Your task to perform on an android device: Go to location settings Image 0: 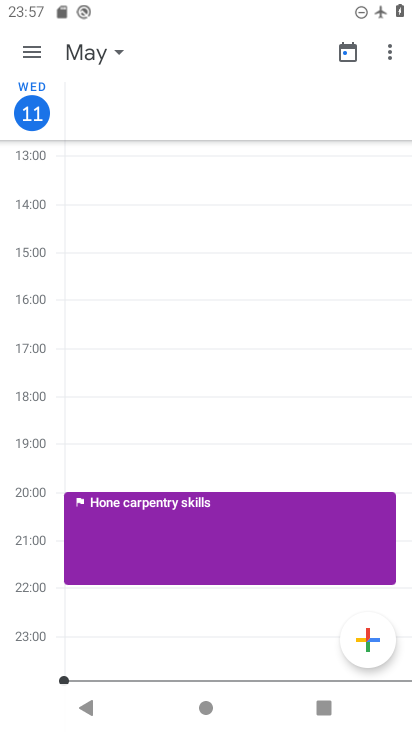
Step 0: press home button
Your task to perform on an android device: Go to location settings Image 1: 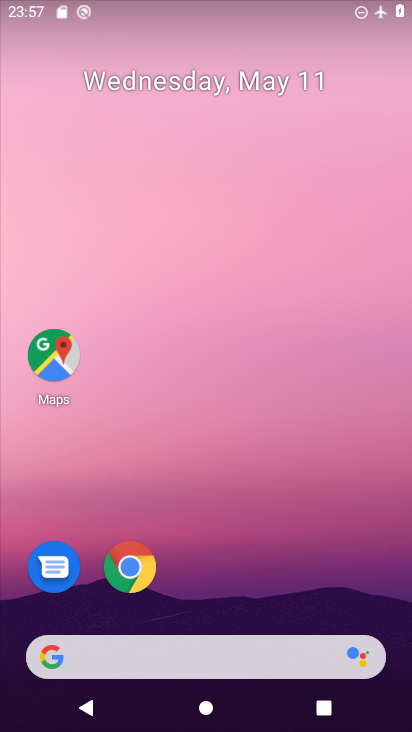
Step 1: drag from (273, 707) to (306, 76)
Your task to perform on an android device: Go to location settings Image 2: 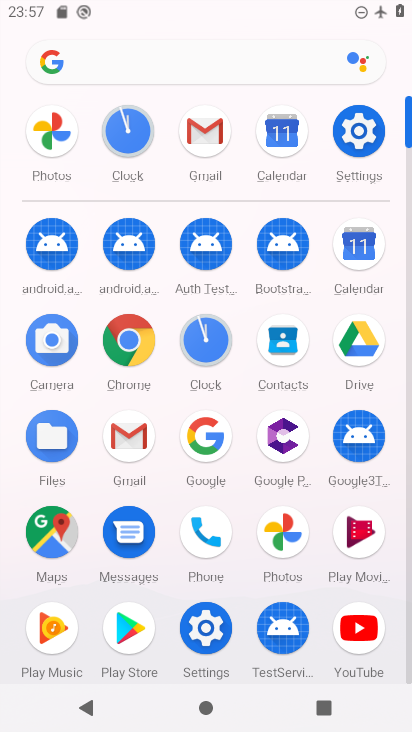
Step 2: click (360, 120)
Your task to perform on an android device: Go to location settings Image 3: 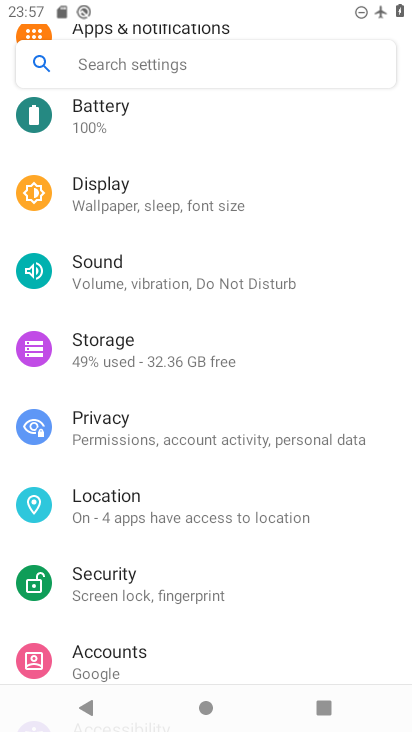
Step 3: click (175, 507)
Your task to perform on an android device: Go to location settings Image 4: 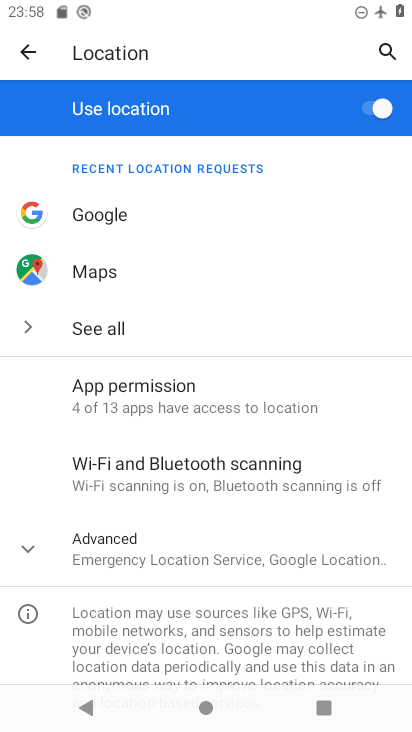
Step 4: task complete